Your task to perform on an android device: set the stopwatch Image 0: 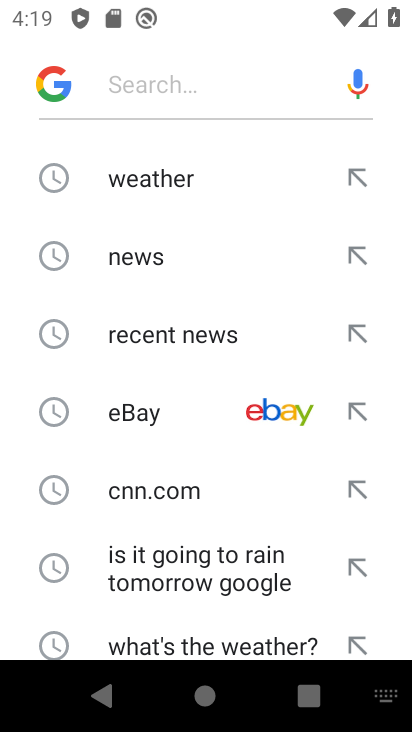
Step 0: press home button
Your task to perform on an android device: set the stopwatch Image 1: 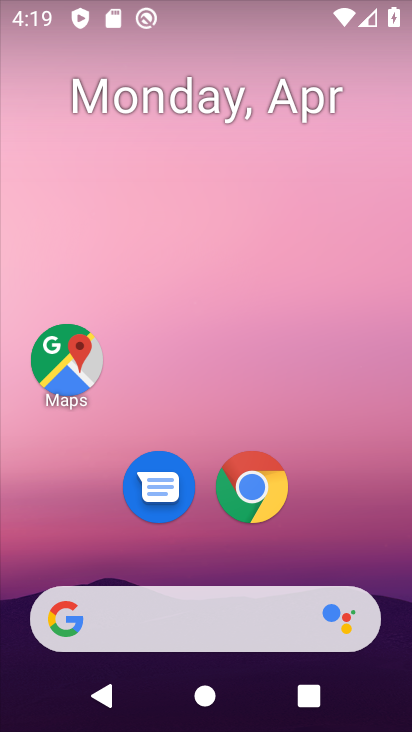
Step 1: drag from (361, 536) to (383, 84)
Your task to perform on an android device: set the stopwatch Image 2: 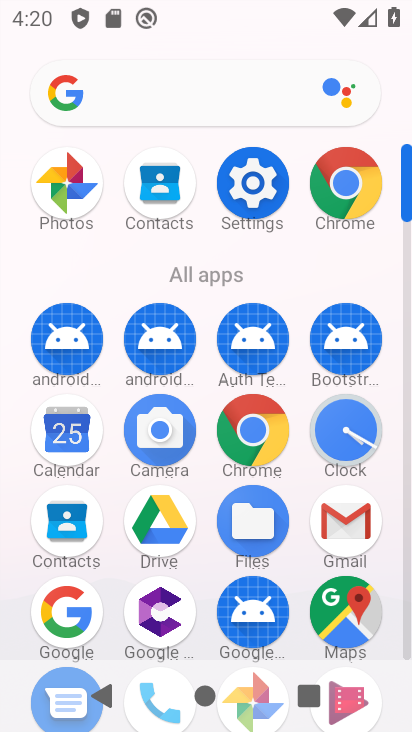
Step 2: click (359, 444)
Your task to perform on an android device: set the stopwatch Image 3: 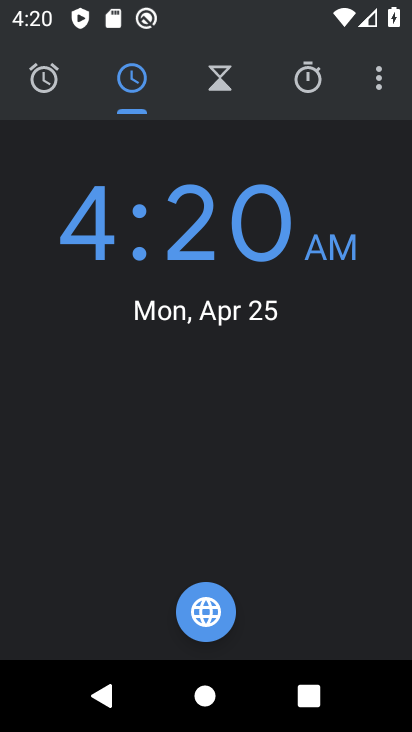
Step 3: click (316, 90)
Your task to perform on an android device: set the stopwatch Image 4: 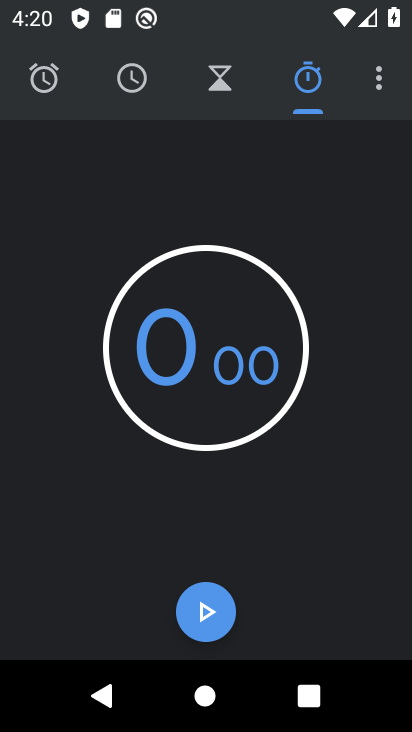
Step 4: click (220, 618)
Your task to perform on an android device: set the stopwatch Image 5: 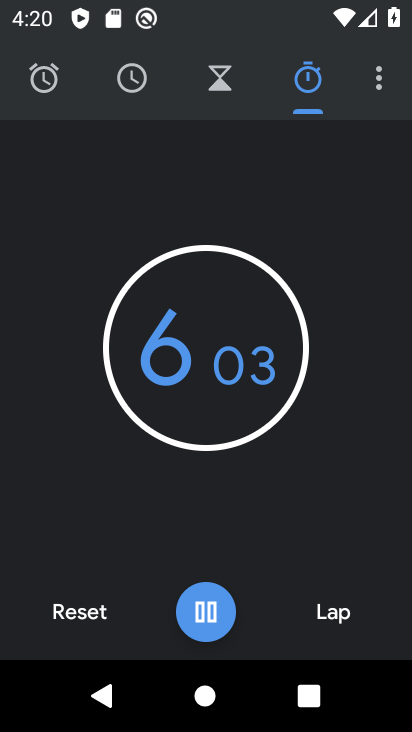
Step 5: task complete